Your task to perform on an android device: turn off airplane mode Image 0: 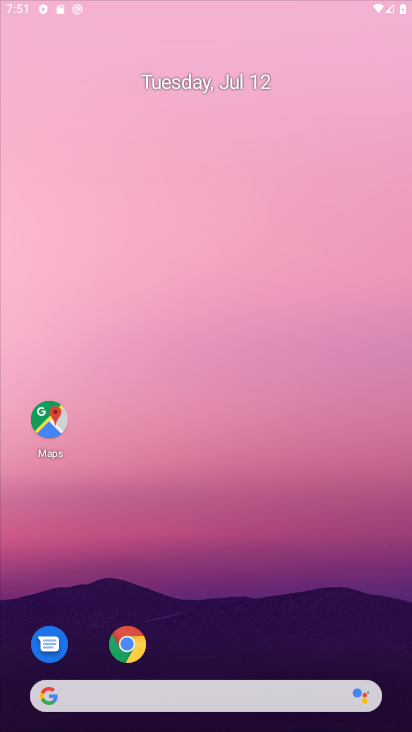
Step 0: click (256, 64)
Your task to perform on an android device: turn off airplane mode Image 1: 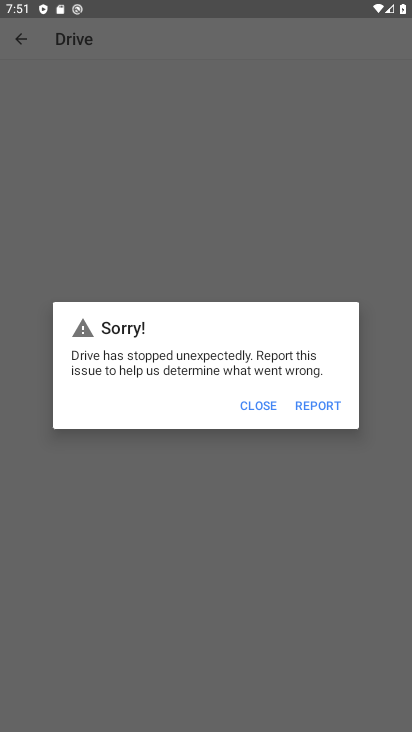
Step 1: task complete